Your task to perform on an android device: Set the phone to "Do not disturb". Image 0: 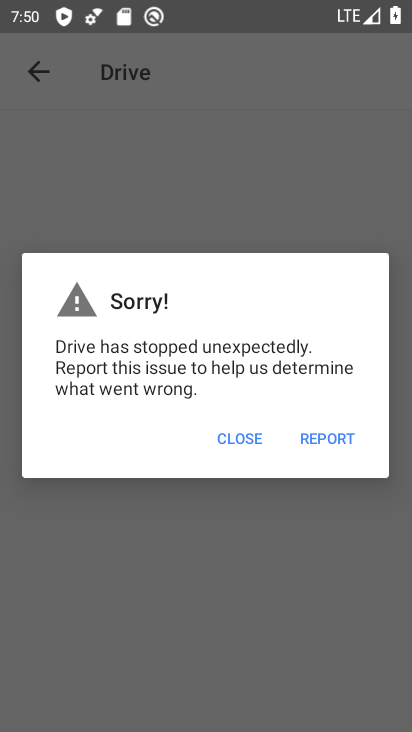
Step 0: press back button
Your task to perform on an android device: Set the phone to "Do not disturb". Image 1: 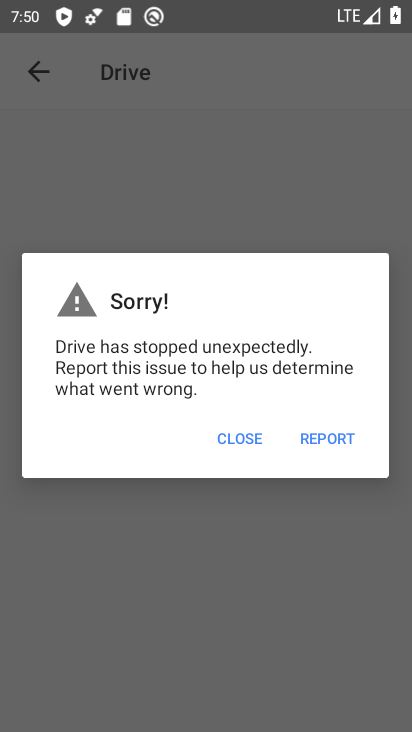
Step 1: press home button
Your task to perform on an android device: Set the phone to "Do not disturb". Image 2: 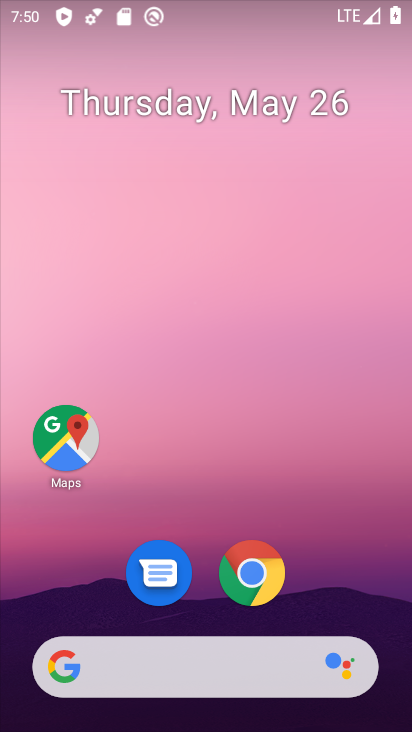
Step 2: drag from (343, 559) to (238, 16)
Your task to perform on an android device: Set the phone to "Do not disturb". Image 3: 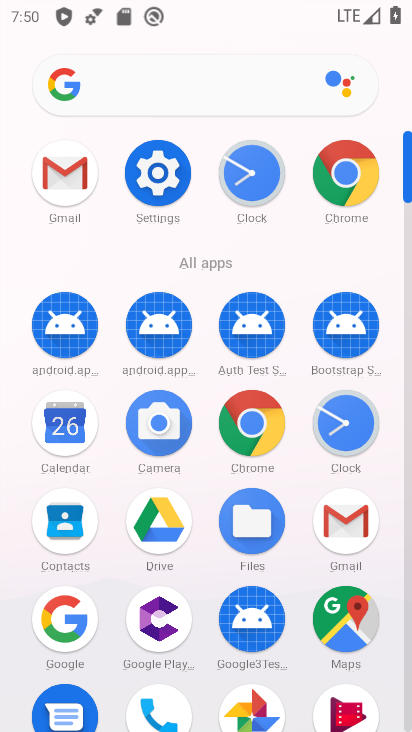
Step 3: click (156, 171)
Your task to perform on an android device: Set the phone to "Do not disturb". Image 4: 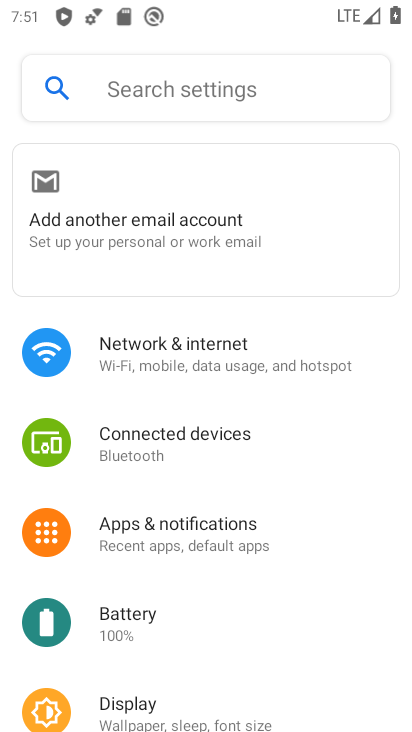
Step 4: drag from (307, 549) to (316, 202)
Your task to perform on an android device: Set the phone to "Do not disturb". Image 5: 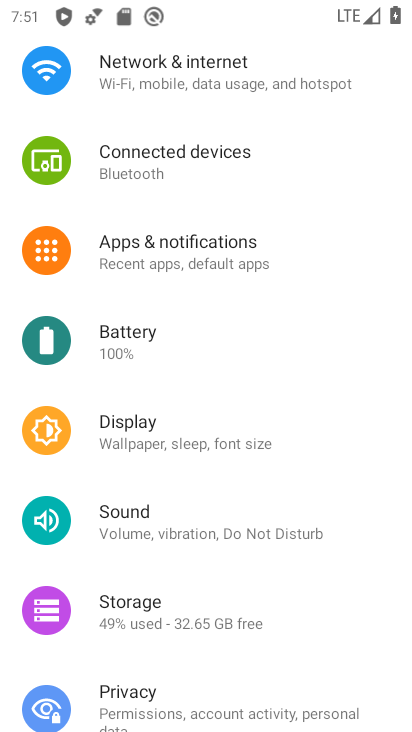
Step 5: drag from (313, 560) to (306, 203)
Your task to perform on an android device: Set the phone to "Do not disturb". Image 6: 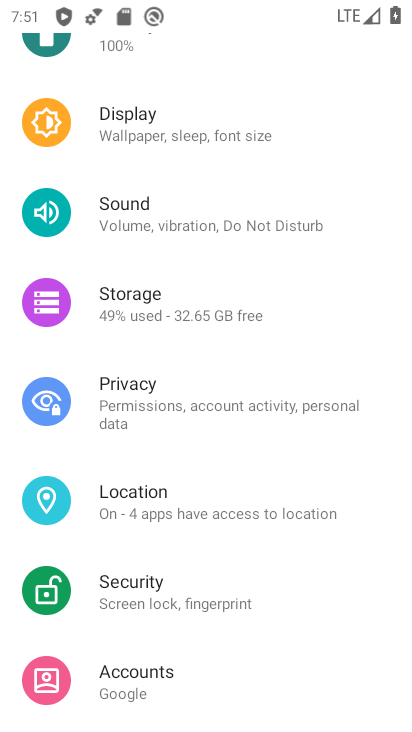
Step 6: click (242, 207)
Your task to perform on an android device: Set the phone to "Do not disturb". Image 7: 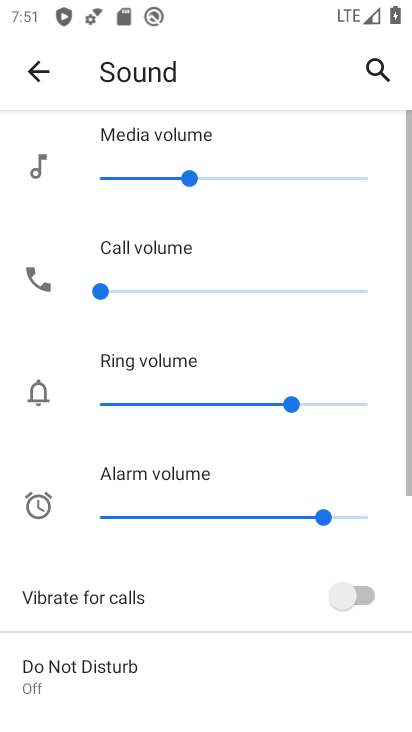
Step 7: click (177, 683)
Your task to perform on an android device: Set the phone to "Do not disturb". Image 8: 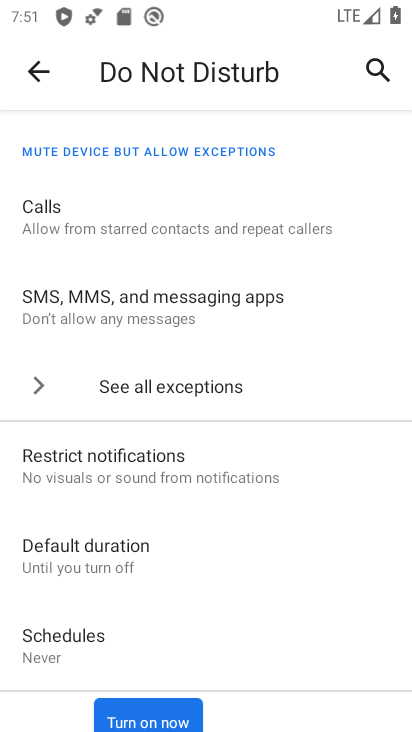
Step 8: click (147, 711)
Your task to perform on an android device: Set the phone to "Do not disturb". Image 9: 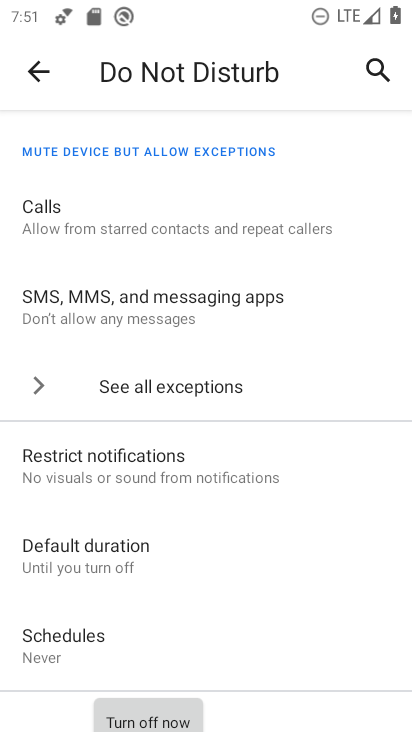
Step 9: task complete